Your task to perform on an android device: Is it going to rain today? Image 0: 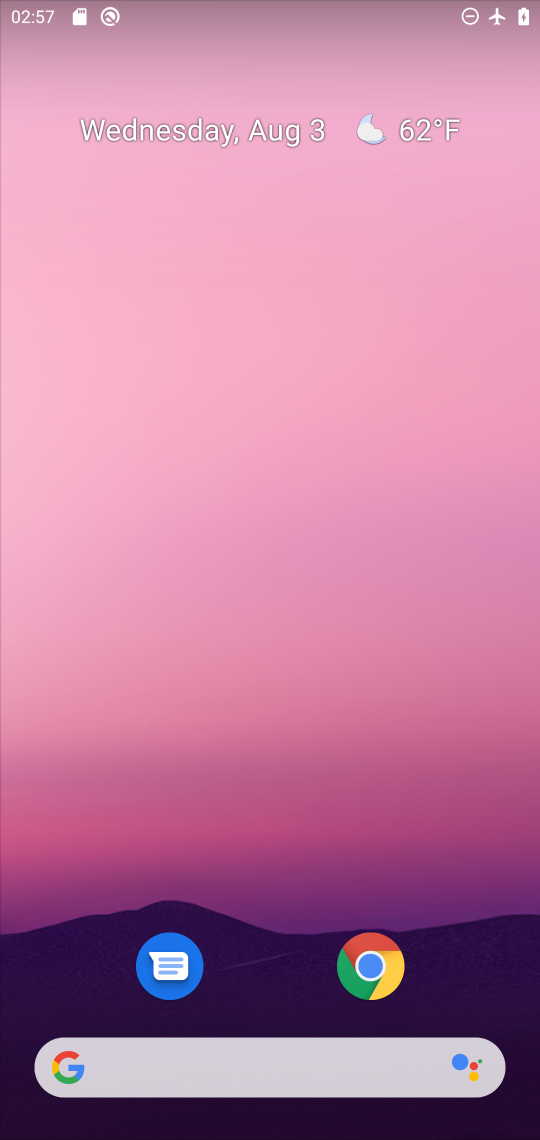
Step 0: drag from (268, 970) to (241, 300)
Your task to perform on an android device: Is it going to rain today? Image 1: 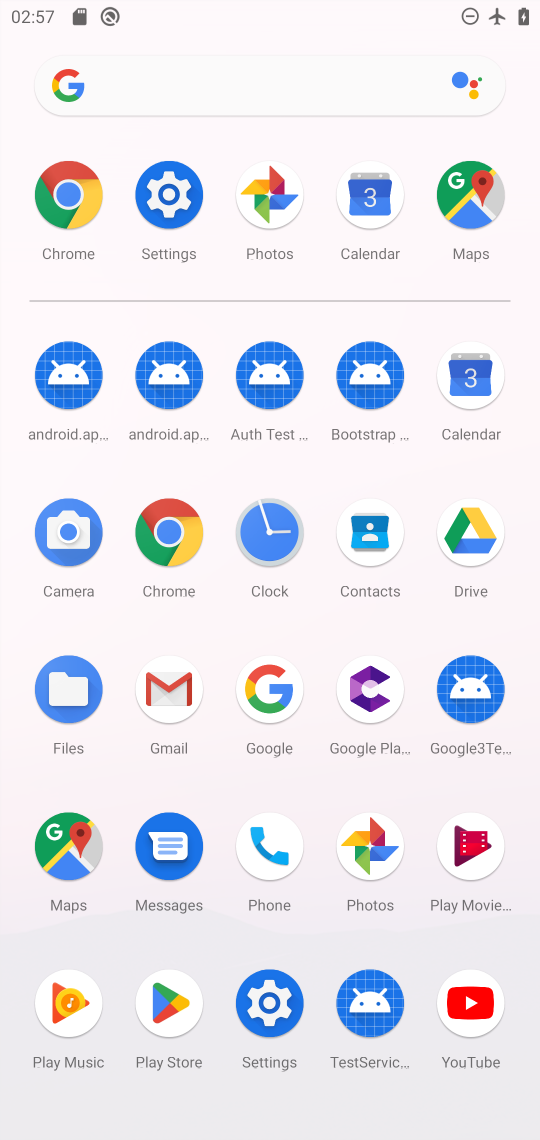
Step 1: click (267, 720)
Your task to perform on an android device: Is it going to rain today? Image 2: 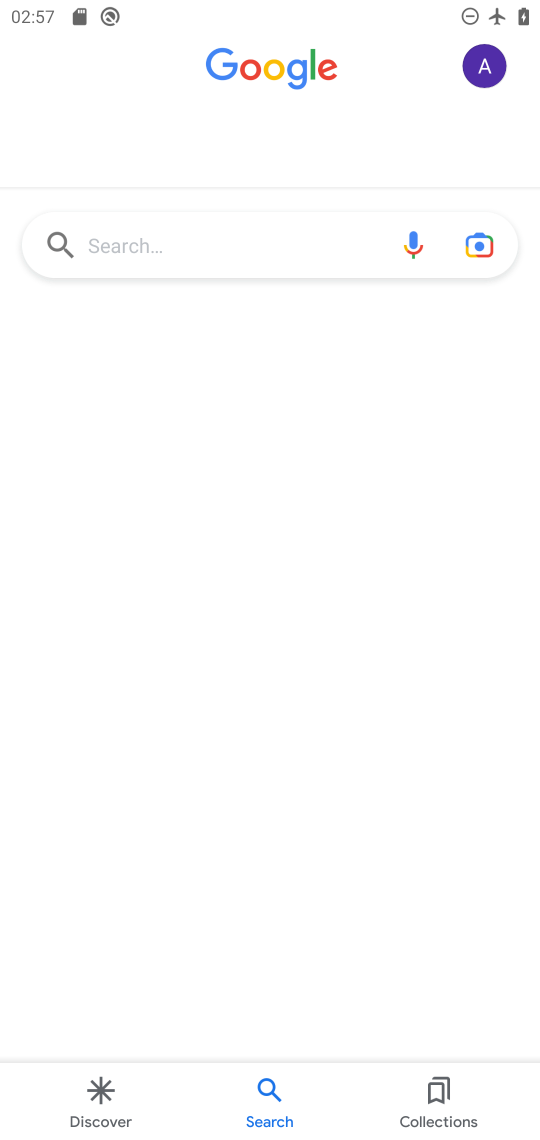
Step 2: click (155, 260)
Your task to perform on an android device: Is it going to rain today? Image 3: 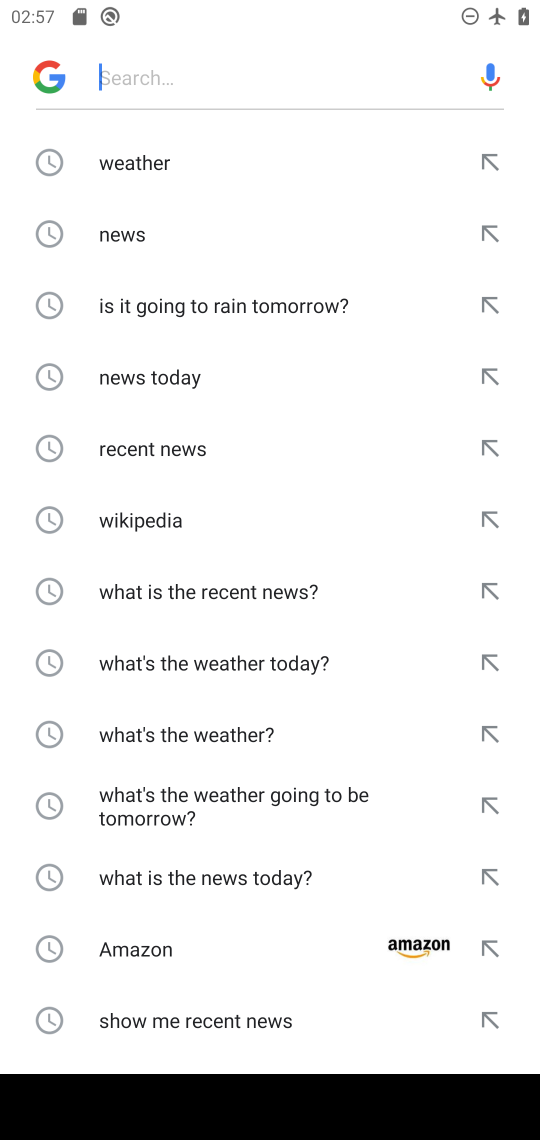
Step 3: click (164, 177)
Your task to perform on an android device: Is it going to rain today? Image 4: 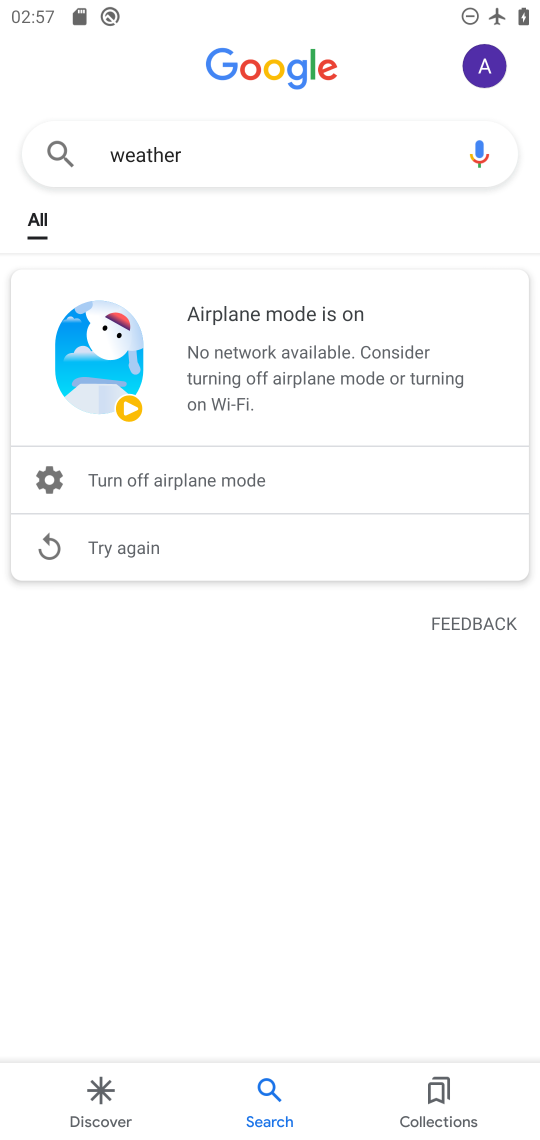
Step 4: task complete